Your task to perform on an android device: toggle sleep mode Image 0: 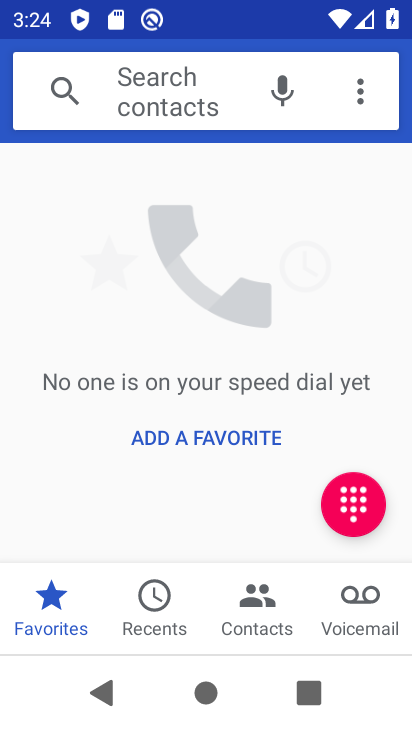
Step 0: press back button
Your task to perform on an android device: toggle sleep mode Image 1: 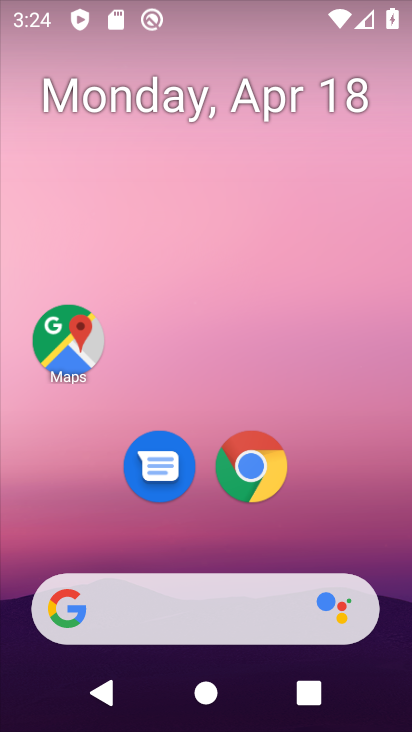
Step 1: drag from (340, 505) to (285, 44)
Your task to perform on an android device: toggle sleep mode Image 2: 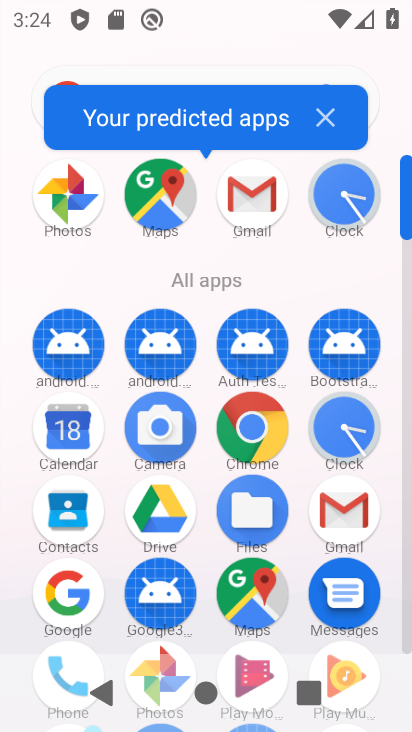
Step 2: drag from (6, 495) to (4, 234)
Your task to perform on an android device: toggle sleep mode Image 3: 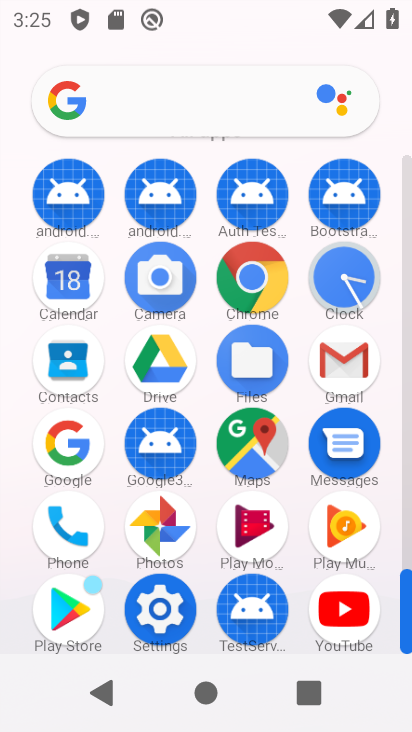
Step 3: click (161, 604)
Your task to perform on an android device: toggle sleep mode Image 4: 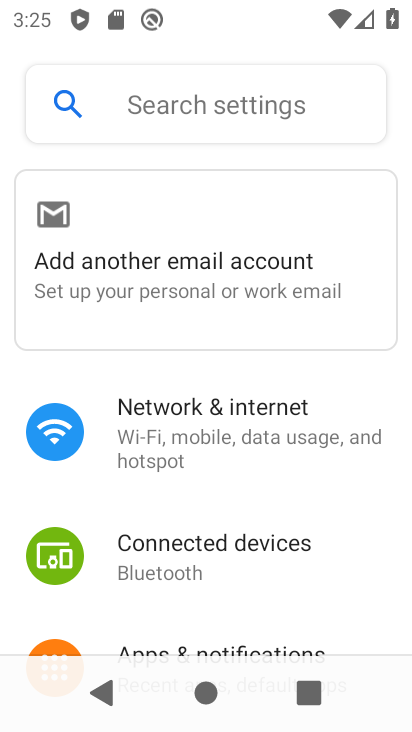
Step 4: drag from (332, 542) to (327, 187)
Your task to perform on an android device: toggle sleep mode Image 5: 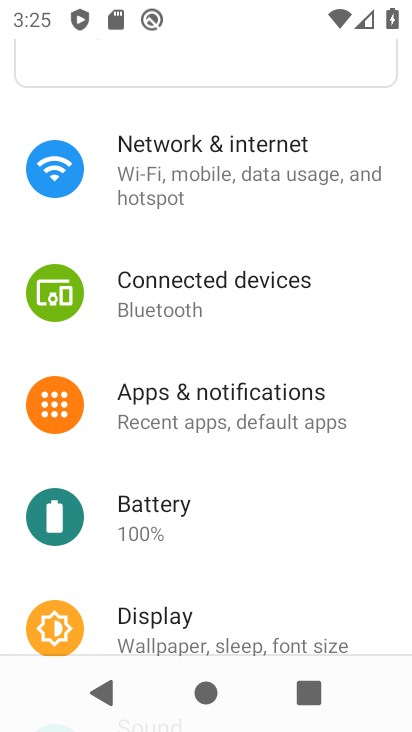
Step 5: click (231, 624)
Your task to perform on an android device: toggle sleep mode Image 6: 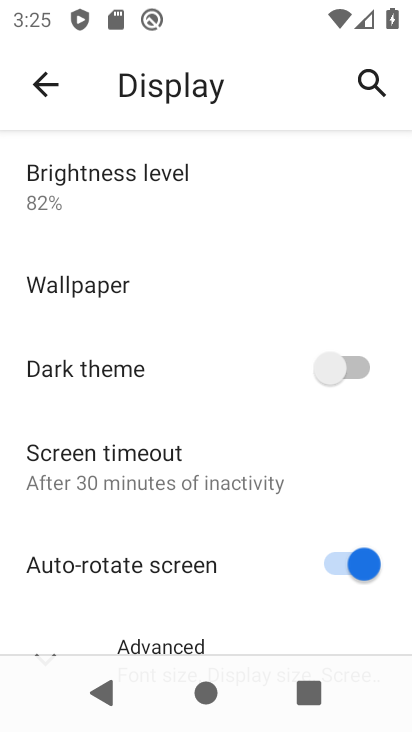
Step 6: drag from (192, 595) to (217, 247)
Your task to perform on an android device: toggle sleep mode Image 7: 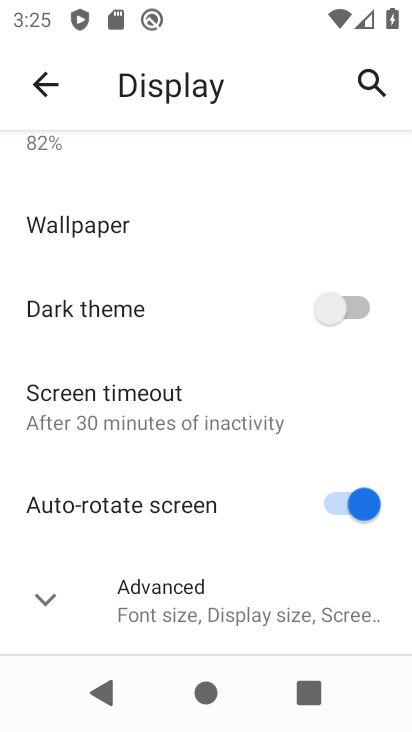
Step 7: click (105, 605)
Your task to perform on an android device: toggle sleep mode Image 8: 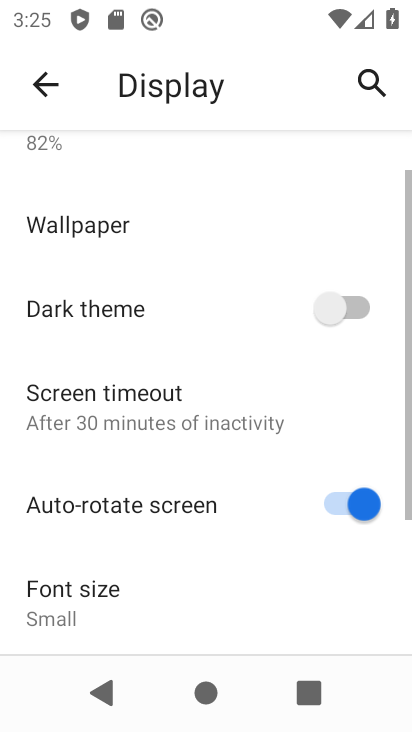
Step 8: task complete